Your task to perform on an android device: allow notifications from all sites in the chrome app Image 0: 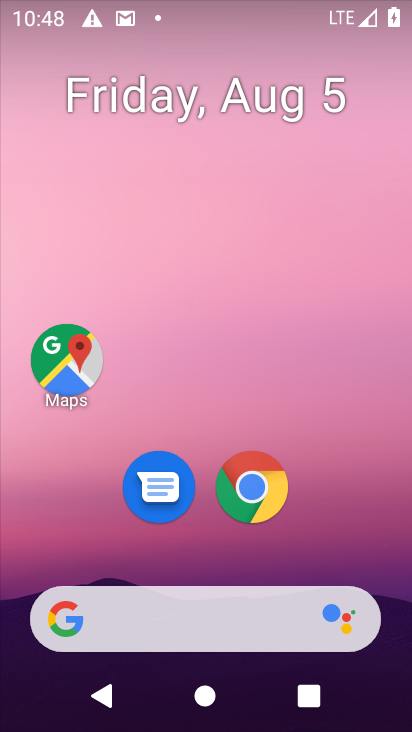
Step 0: click (242, 488)
Your task to perform on an android device: allow notifications from all sites in the chrome app Image 1: 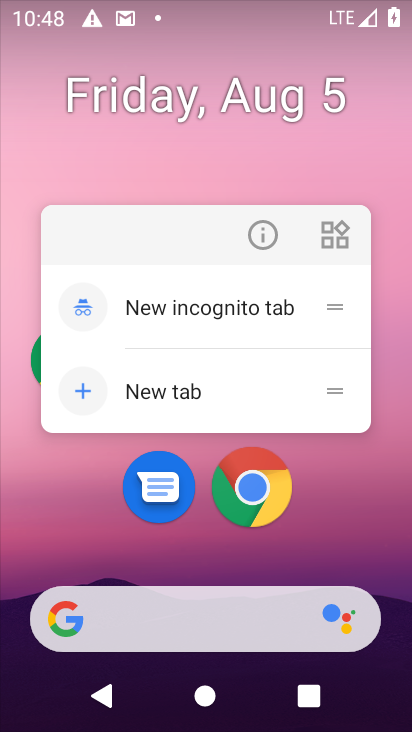
Step 1: click (255, 244)
Your task to perform on an android device: allow notifications from all sites in the chrome app Image 2: 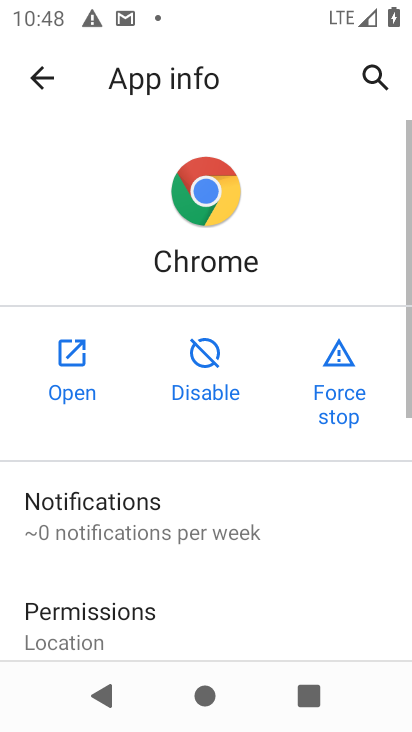
Step 2: click (123, 514)
Your task to perform on an android device: allow notifications from all sites in the chrome app Image 3: 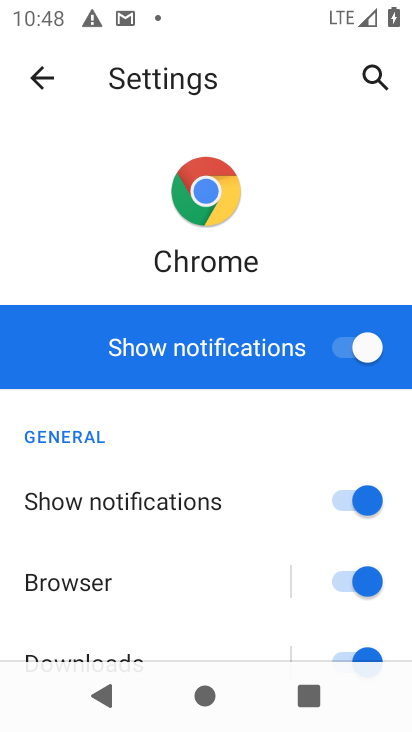
Step 3: task complete